Your task to perform on an android device: add a contact in the contacts app Image 0: 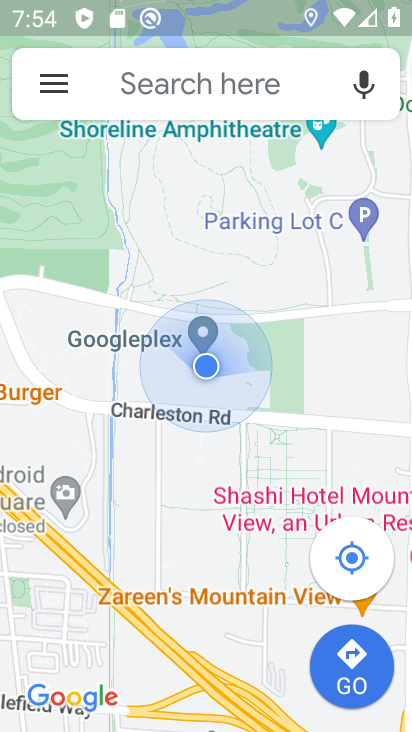
Step 0: press home button
Your task to perform on an android device: add a contact in the contacts app Image 1: 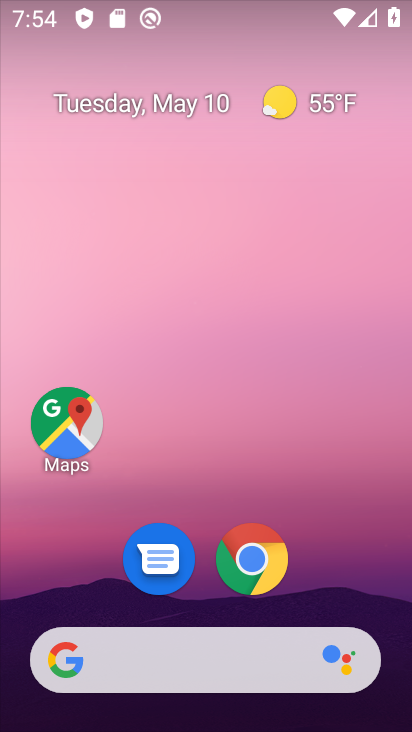
Step 1: drag from (216, 724) to (224, 242)
Your task to perform on an android device: add a contact in the contacts app Image 2: 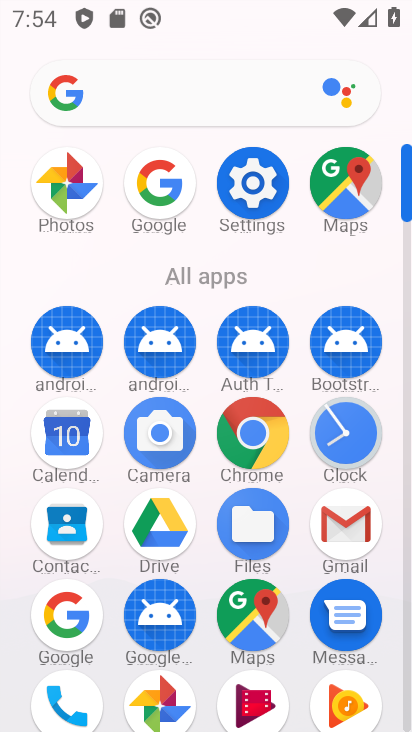
Step 2: click (63, 529)
Your task to perform on an android device: add a contact in the contacts app Image 3: 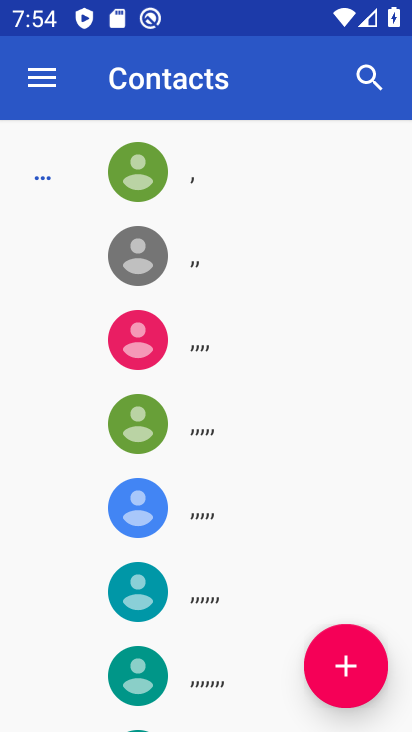
Step 3: click (349, 663)
Your task to perform on an android device: add a contact in the contacts app Image 4: 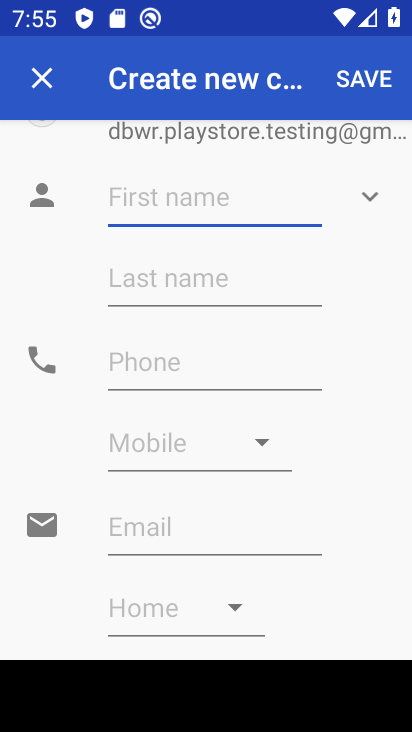
Step 4: type "zombi"
Your task to perform on an android device: add a contact in the contacts app Image 5: 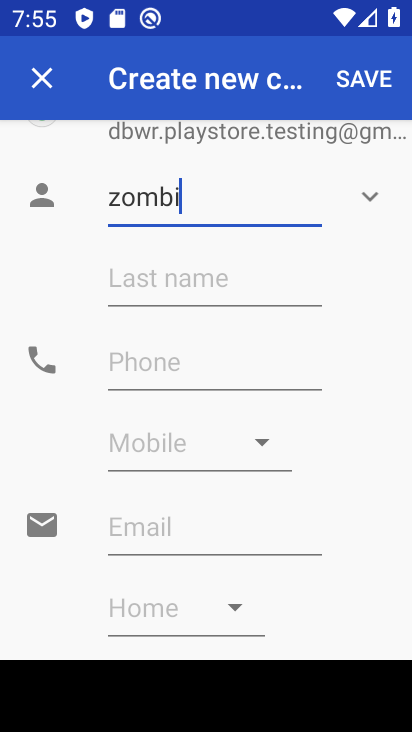
Step 5: click (131, 368)
Your task to perform on an android device: add a contact in the contacts app Image 6: 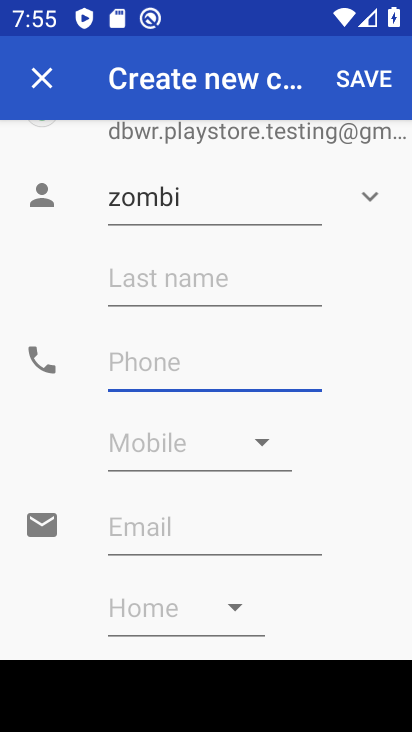
Step 6: type "555555"
Your task to perform on an android device: add a contact in the contacts app Image 7: 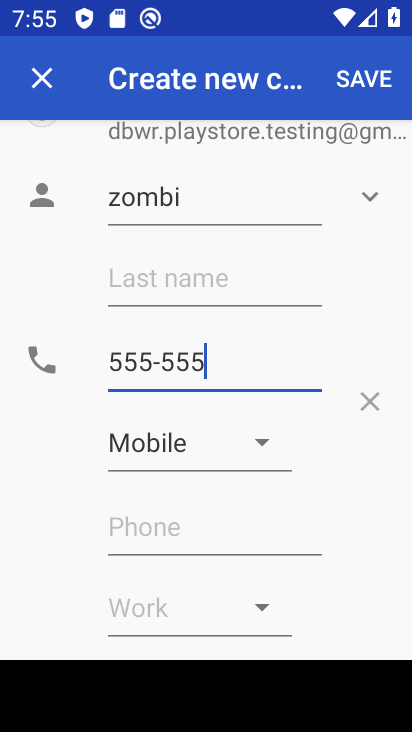
Step 7: click (360, 69)
Your task to perform on an android device: add a contact in the contacts app Image 8: 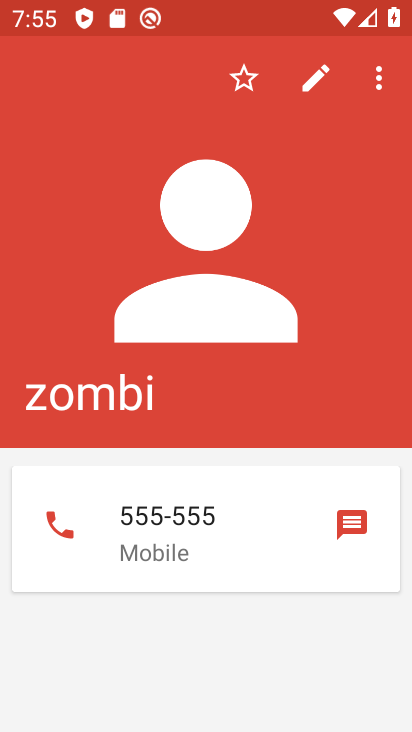
Step 8: task complete